Your task to perform on an android device: open app "Speedtest by Ookla" (install if not already installed) and go to login screen Image 0: 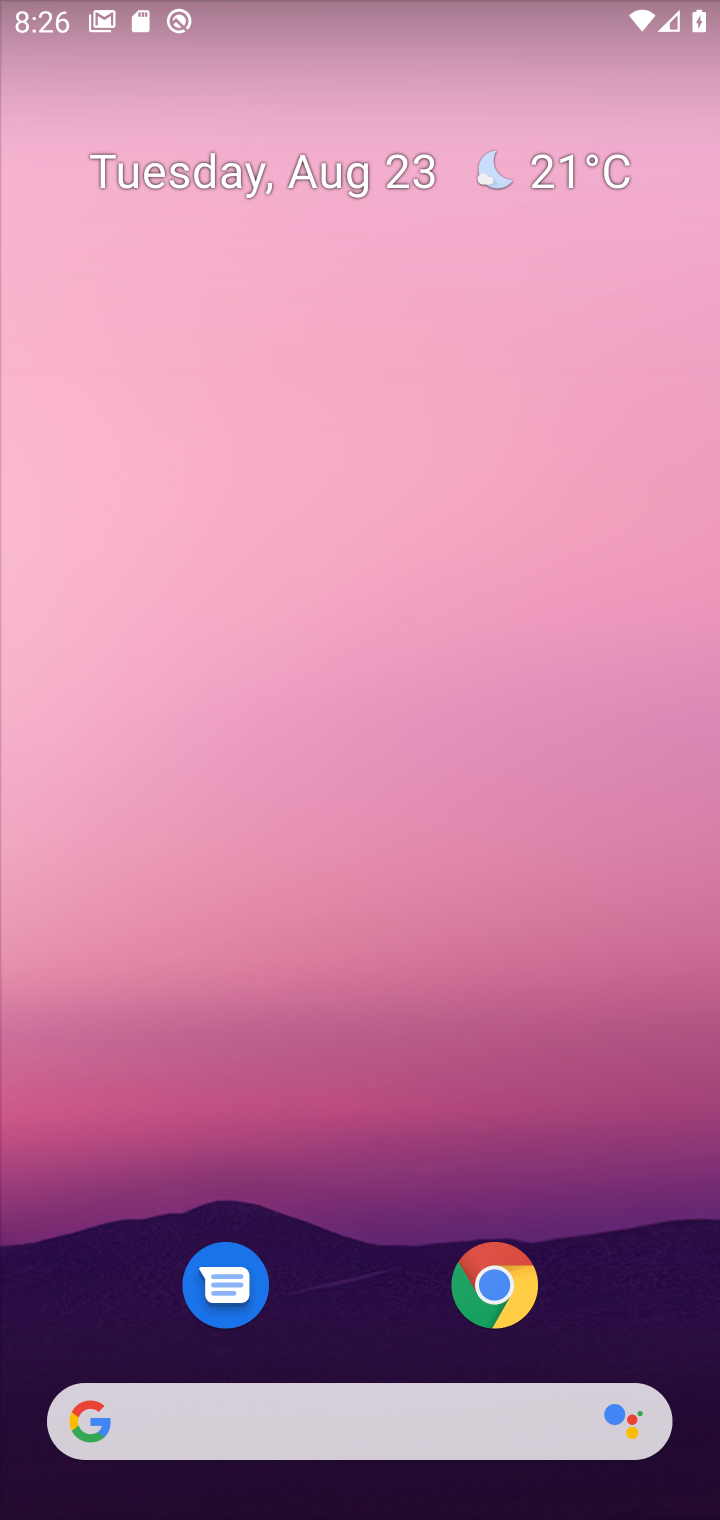
Step 0: drag from (692, 1335) to (603, 244)
Your task to perform on an android device: open app "Speedtest by Ookla" (install if not already installed) and go to login screen Image 1: 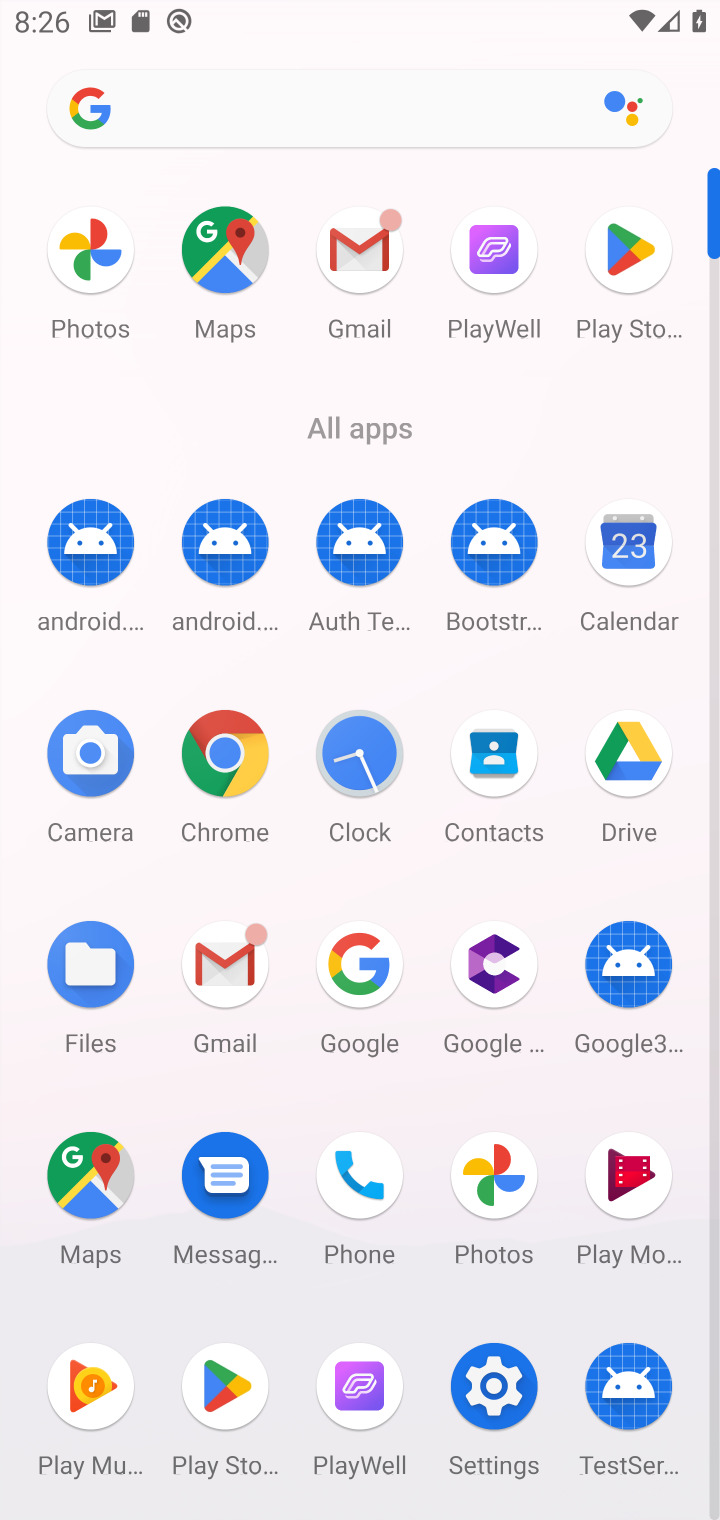
Step 1: click (227, 1394)
Your task to perform on an android device: open app "Speedtest by Ookla" (install if not already installed) and go to login screen Image 2: 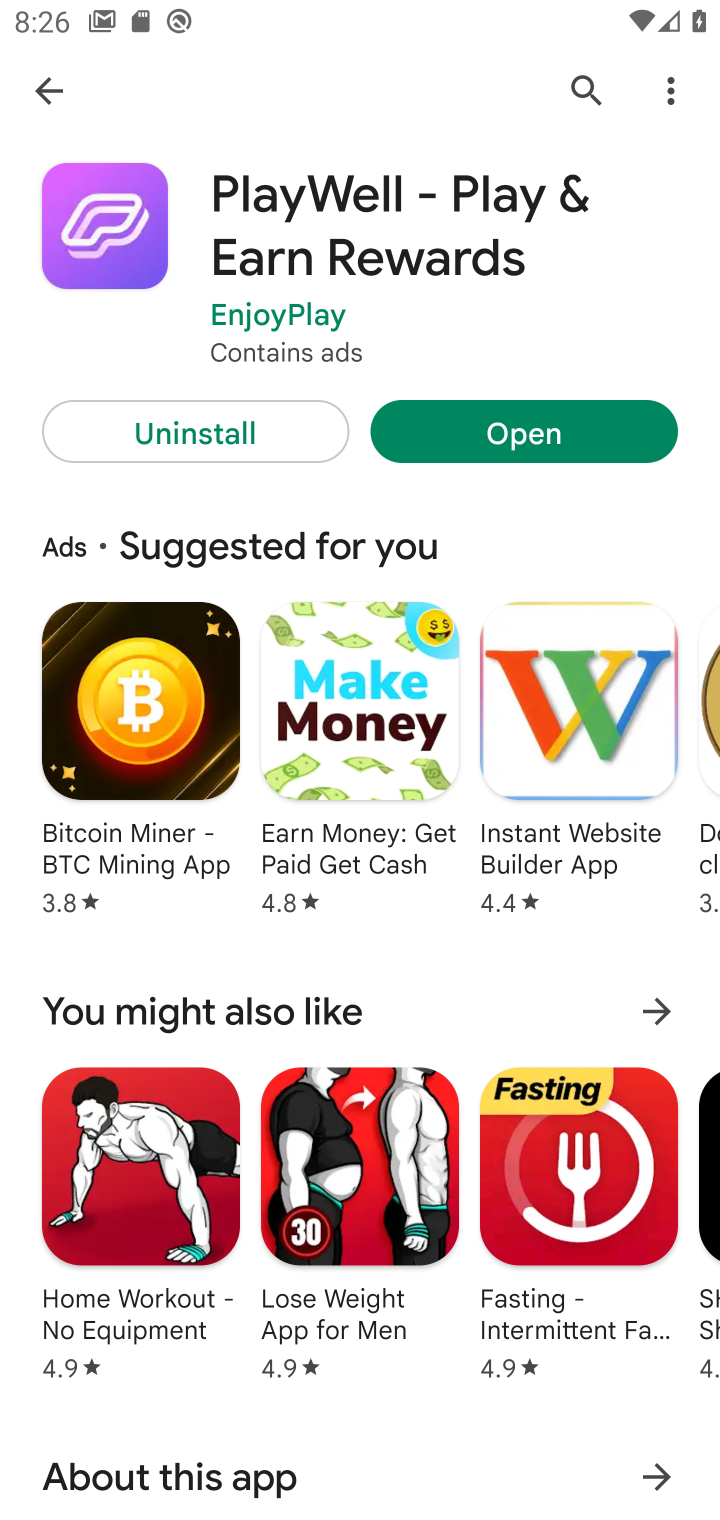
Step 2: click (575, 79)
Your task to perform on an android device: open app "Speedtest by Ookla" (install if not already installed) and go to login screen Image 3: 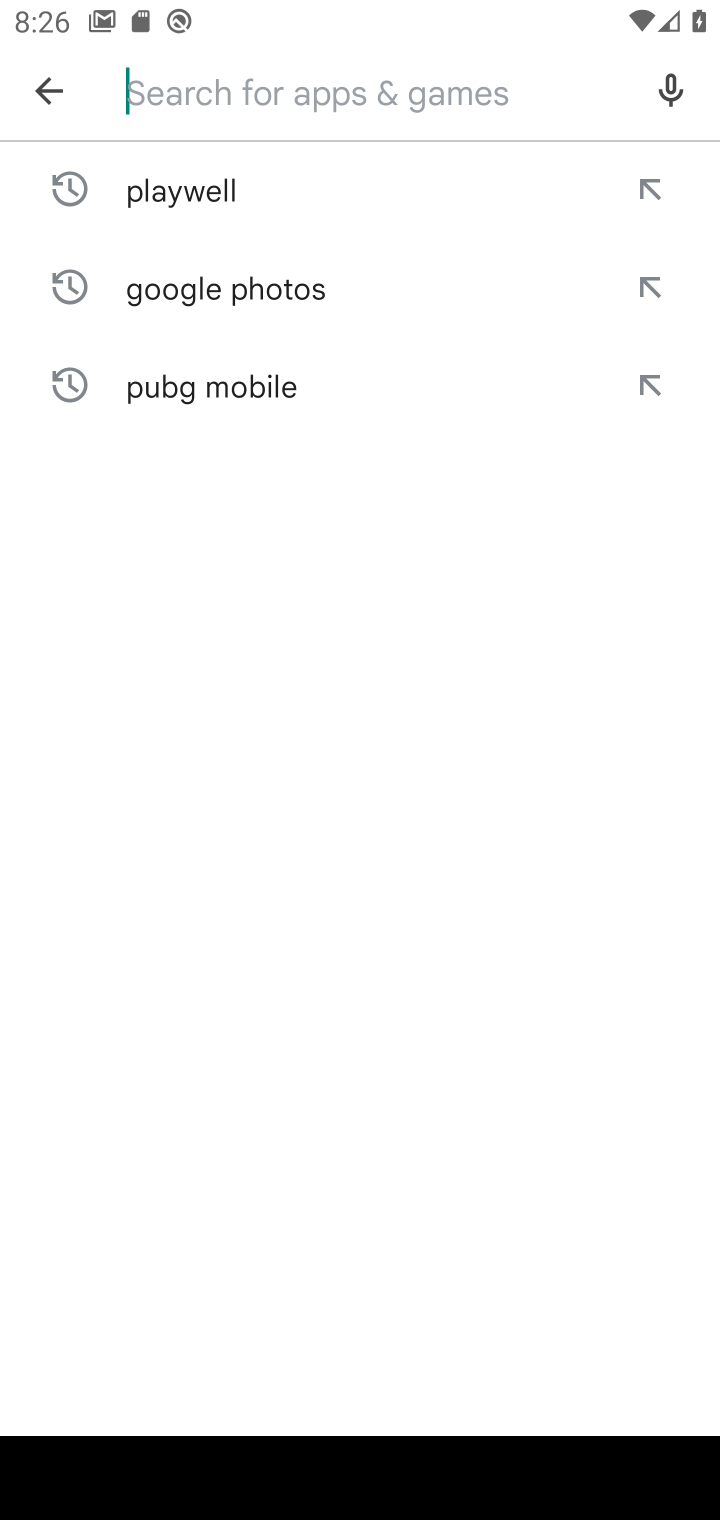
Step 3: type "Speedtest by Ookla"
Your task to perform on an android device: open app "Speedtest by Ookla" (install if not already installed) and go to login screen Image 4: 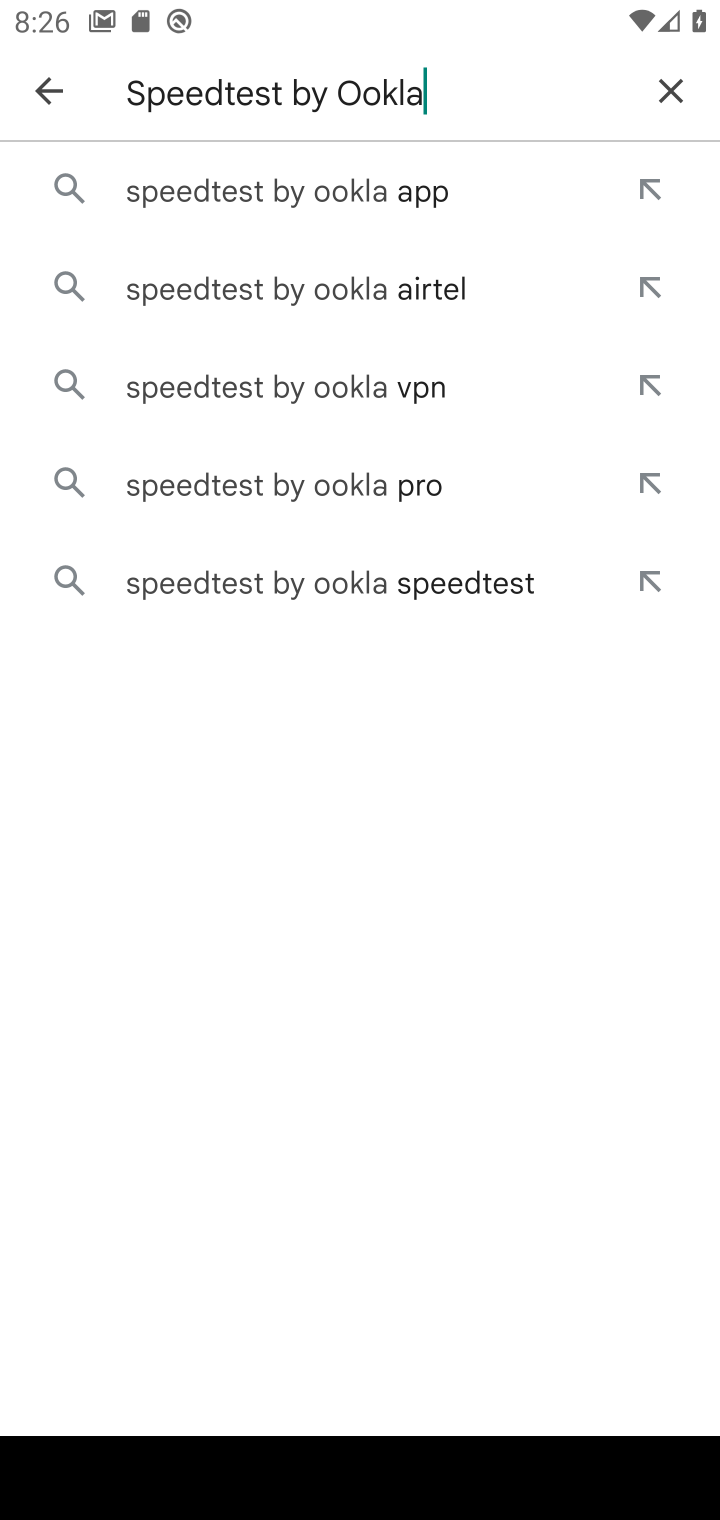
Step 4: click (235, 185)
Your task to perform on an android device: open app "Speedtest by Ookla" (install if not already installed) and go to login screen Image 5: 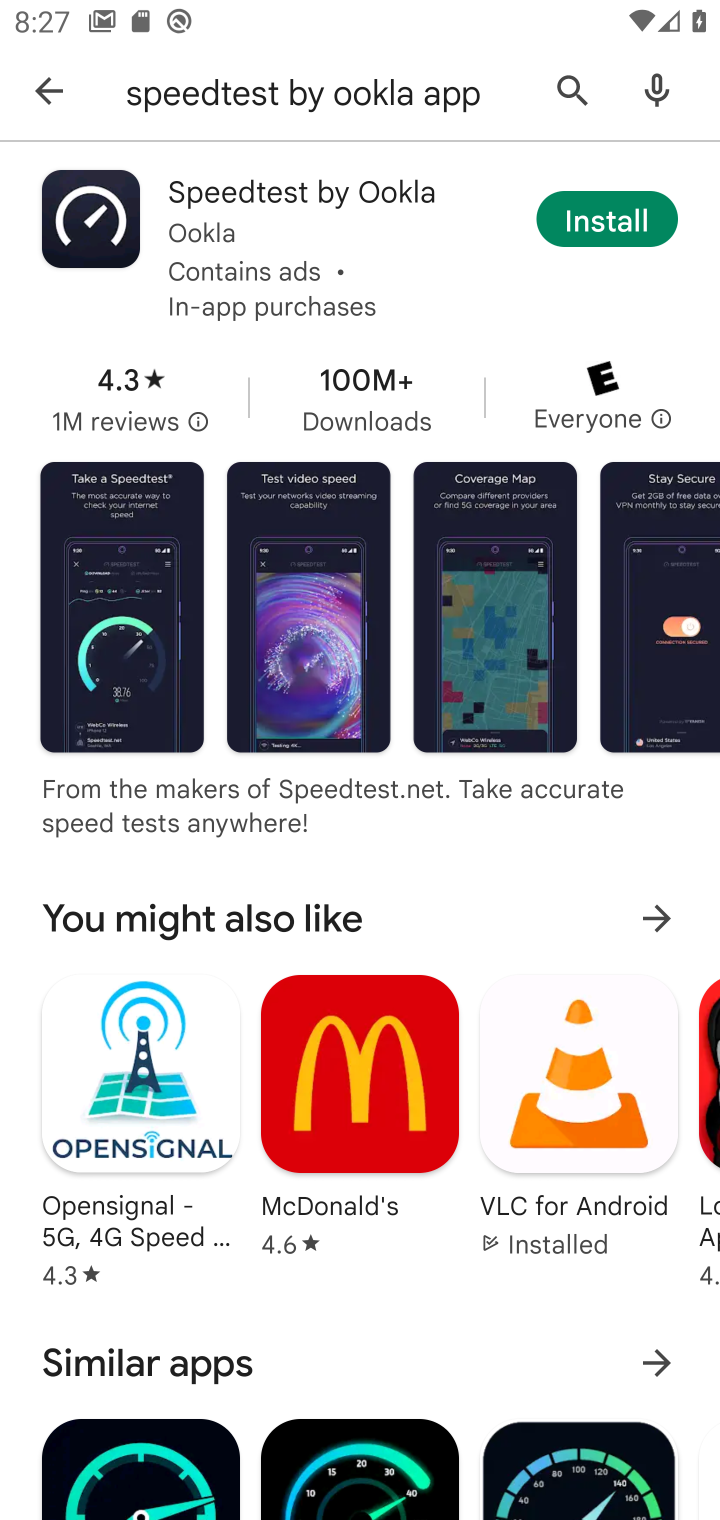
Step 5: click (236, 195)
Your task to perform on an android device: open app "Speedtest by Ookla" (install if not already installed) and go to login screen Image 6: 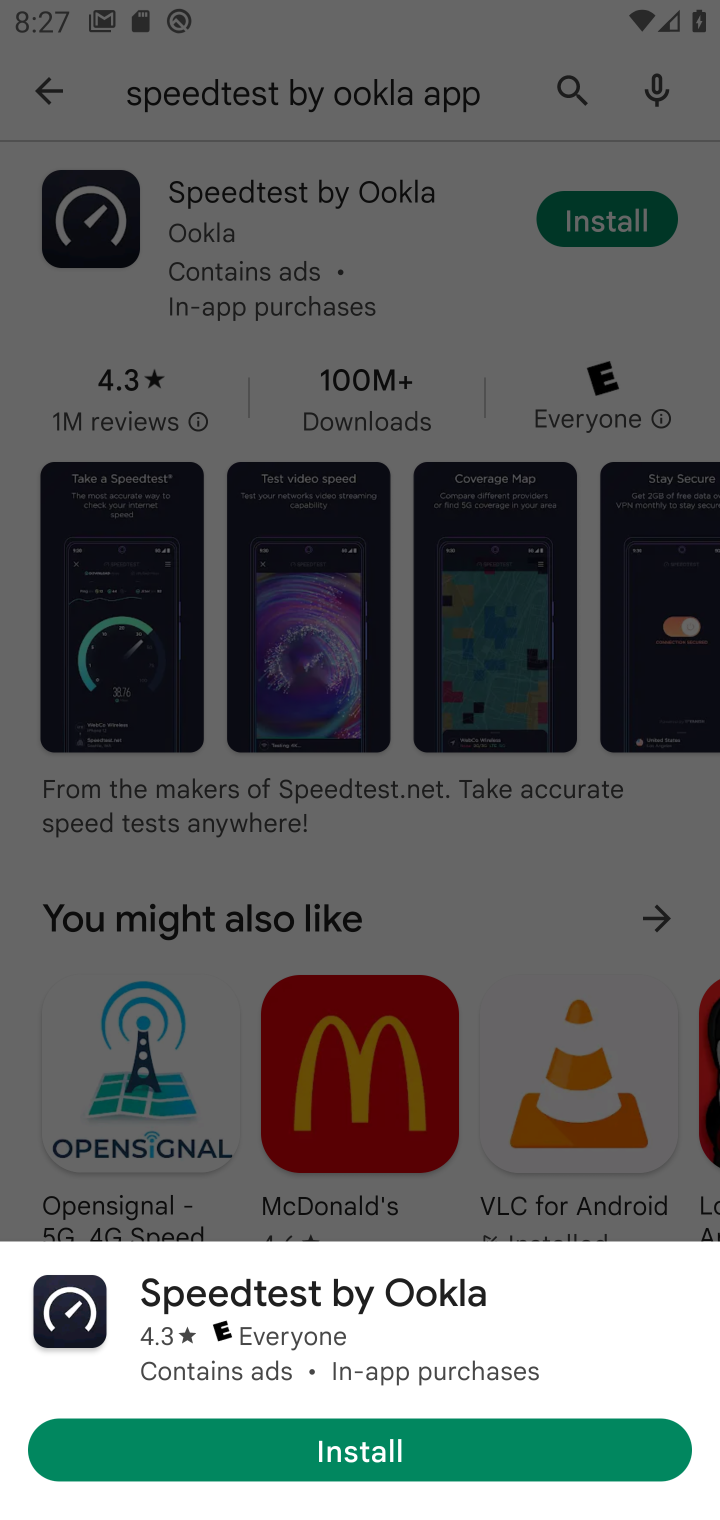
Step 6: click (343, 1452)
Your task to perform on an android device: open app "Speedtest by Ookla" (install if not already installed) and go to login screen Image 7: 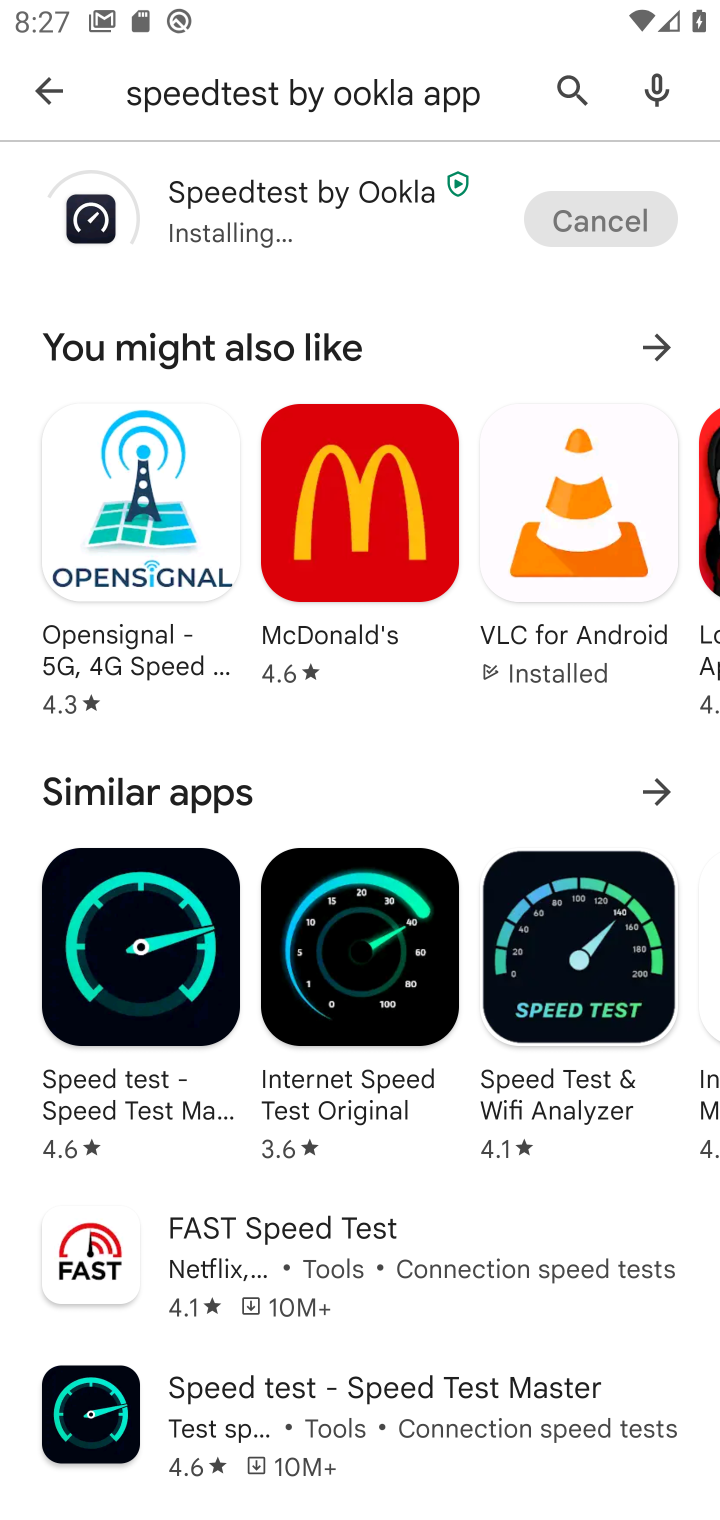
Step 7: click (249, 189)
Your task to perform on an android device: open app "Speedtest by Ookla" (install if not already installed) and go to login screen Image 8: 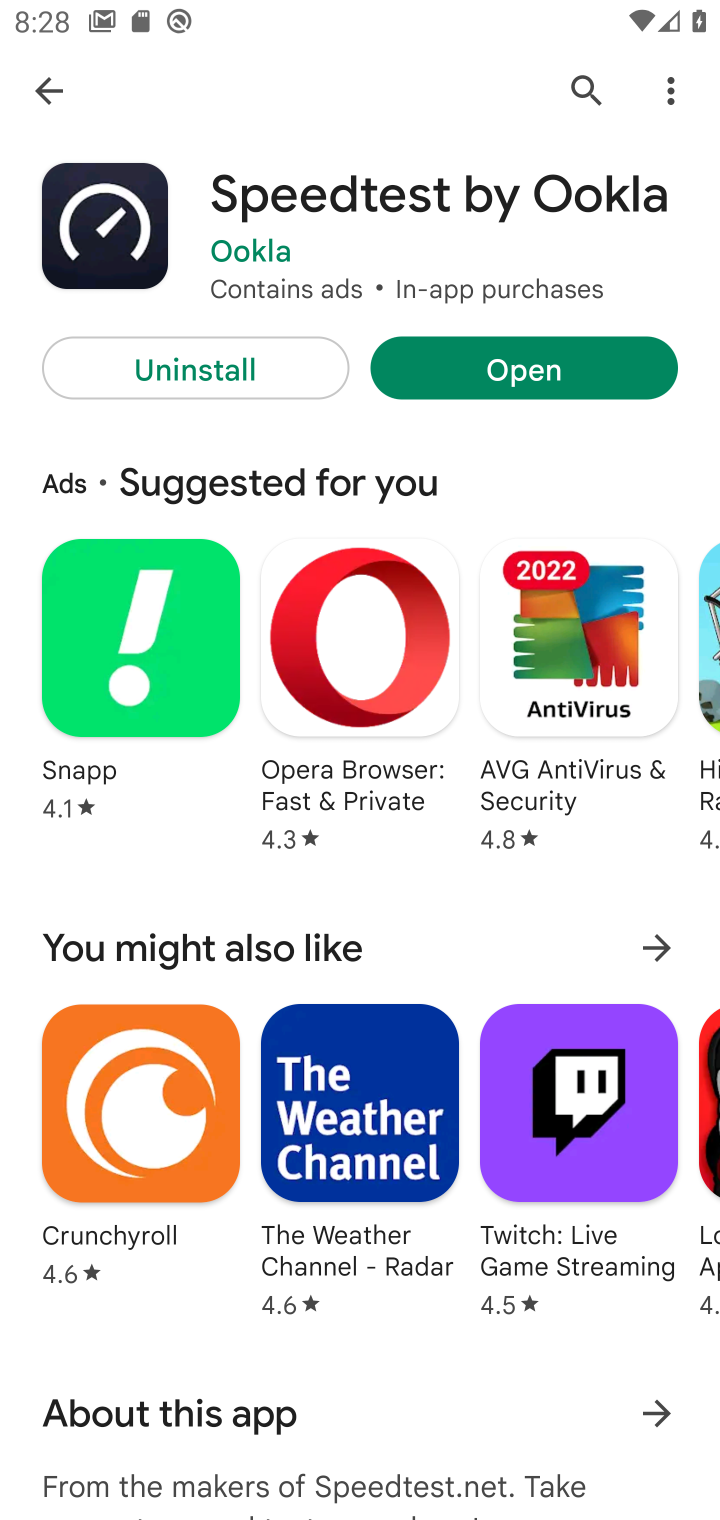
Step 8: click (518, 378)
Your task to perform on an android device: open app "Speedtest by Ookla" (install if not already installed) and go to login screen Image 9: 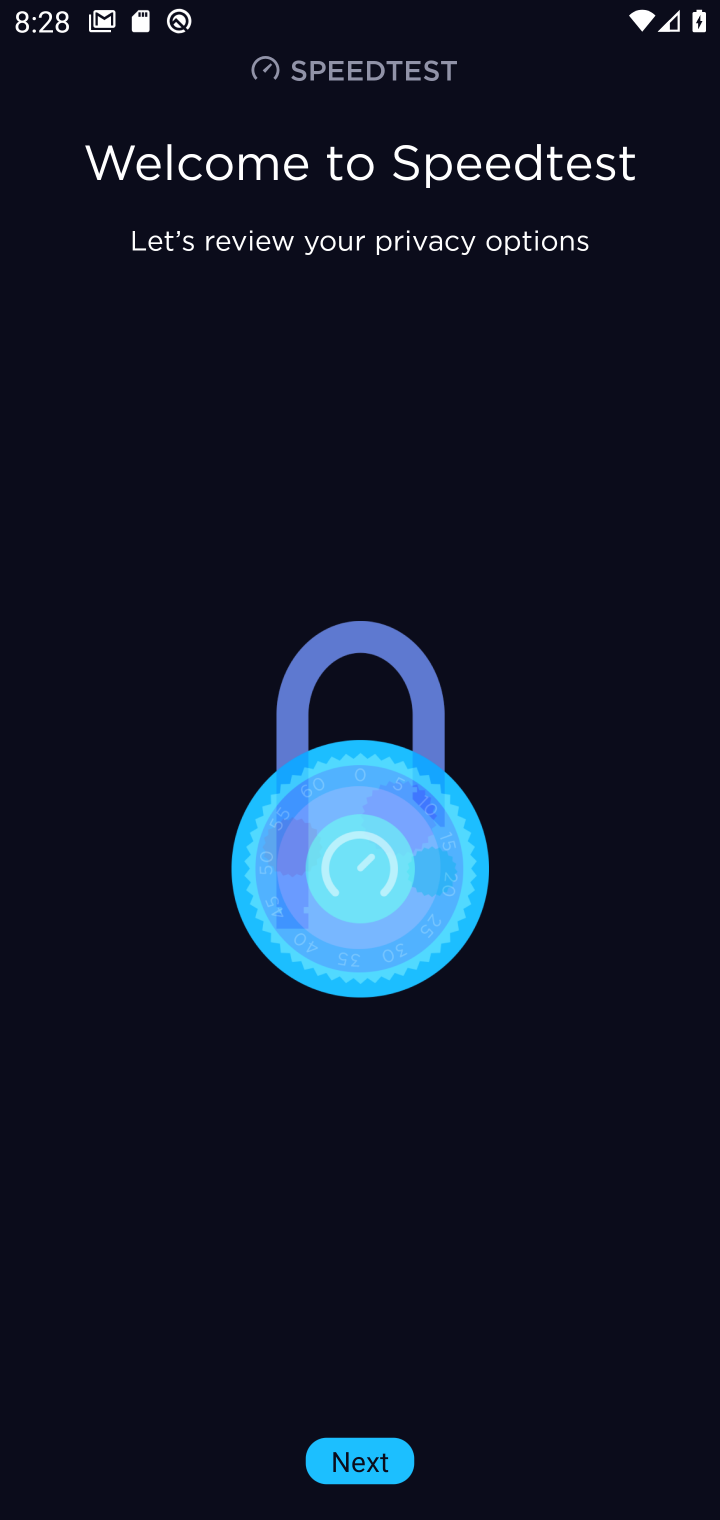
Step 9: click (354, 1451)
Your task to perform on an android device: open app "Speedtest by Ookla" (install if not already installed) and go to login screen Image 10: 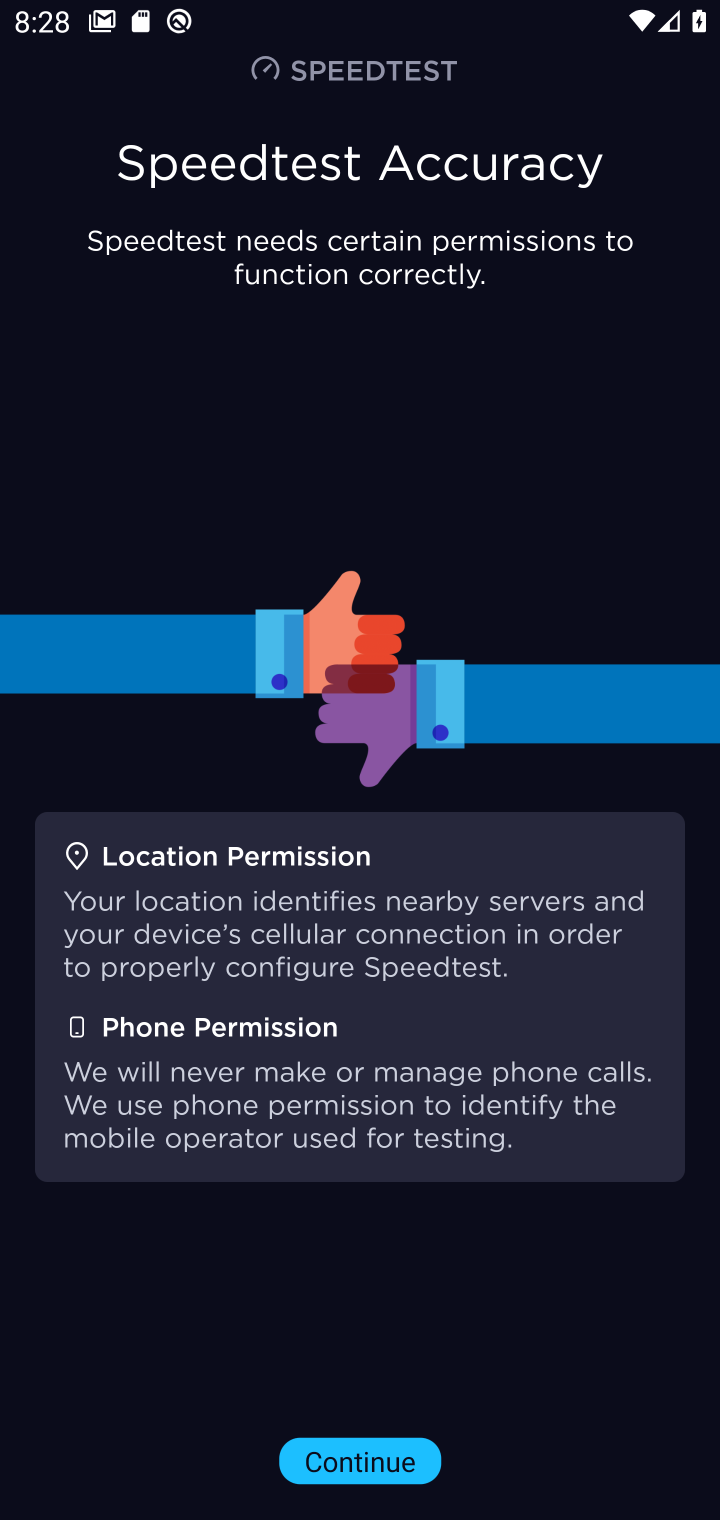
Step 10: click (365, 1455)
Your task to perform on an android device: open app "Speedtest by Ookla" (install if not already installed) and go to login screen Image 11: 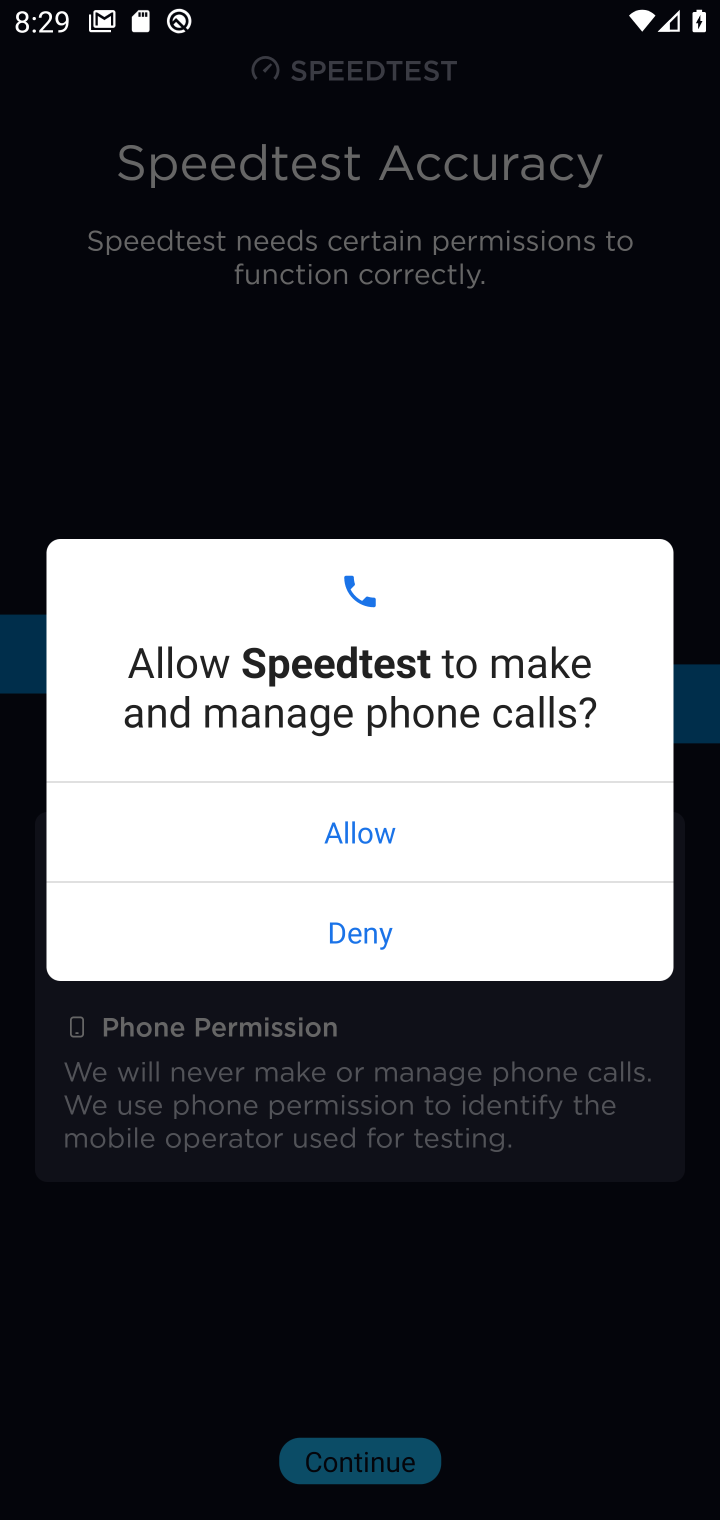
Step 11: click (355, 816)
Your task to perform on an android device: open app "Speedtest by Ookla" (install if not already installed) and go to login screen Image 12: 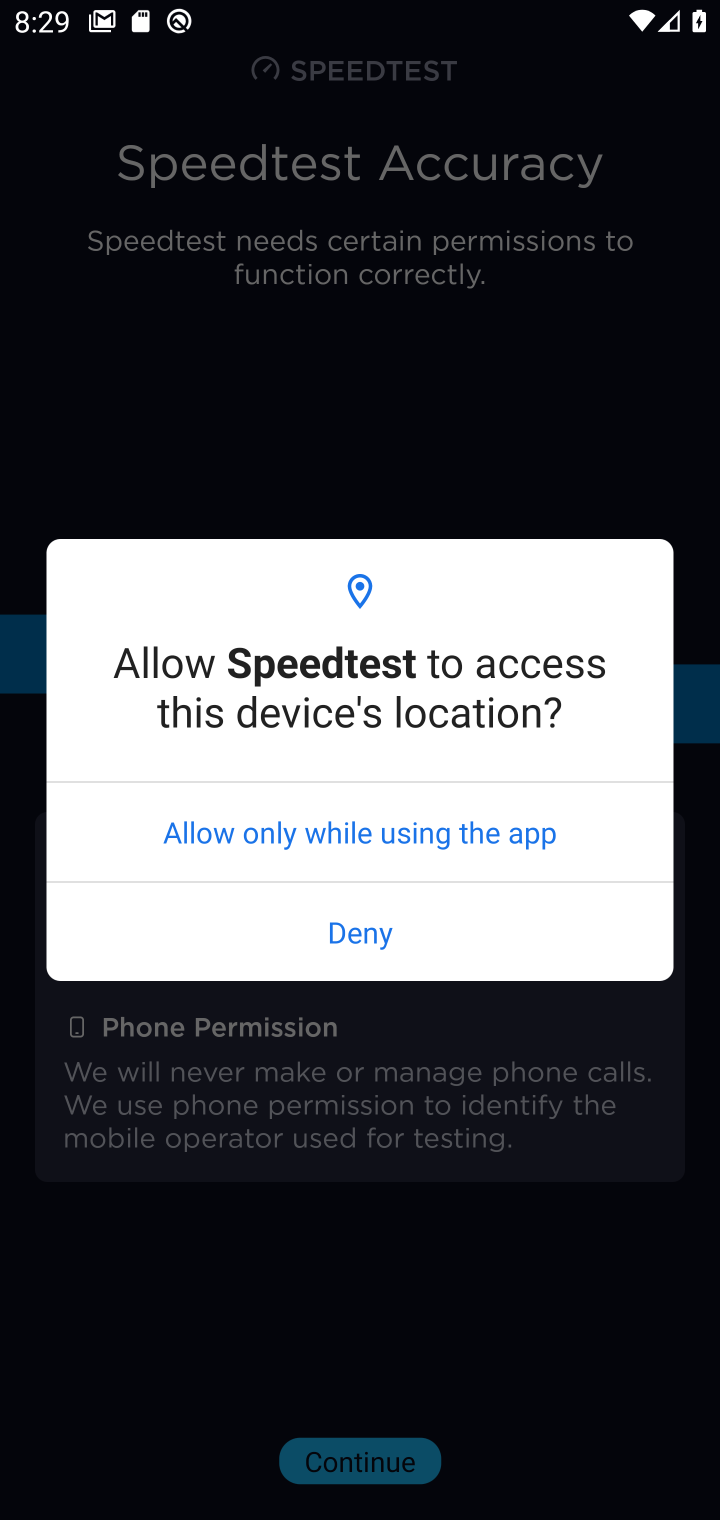
Step 12: click (355, 816)
Your task to perform on an android device: open app "Speedtest by Ookla" (install if not already installed) and go to login screen Image 13: 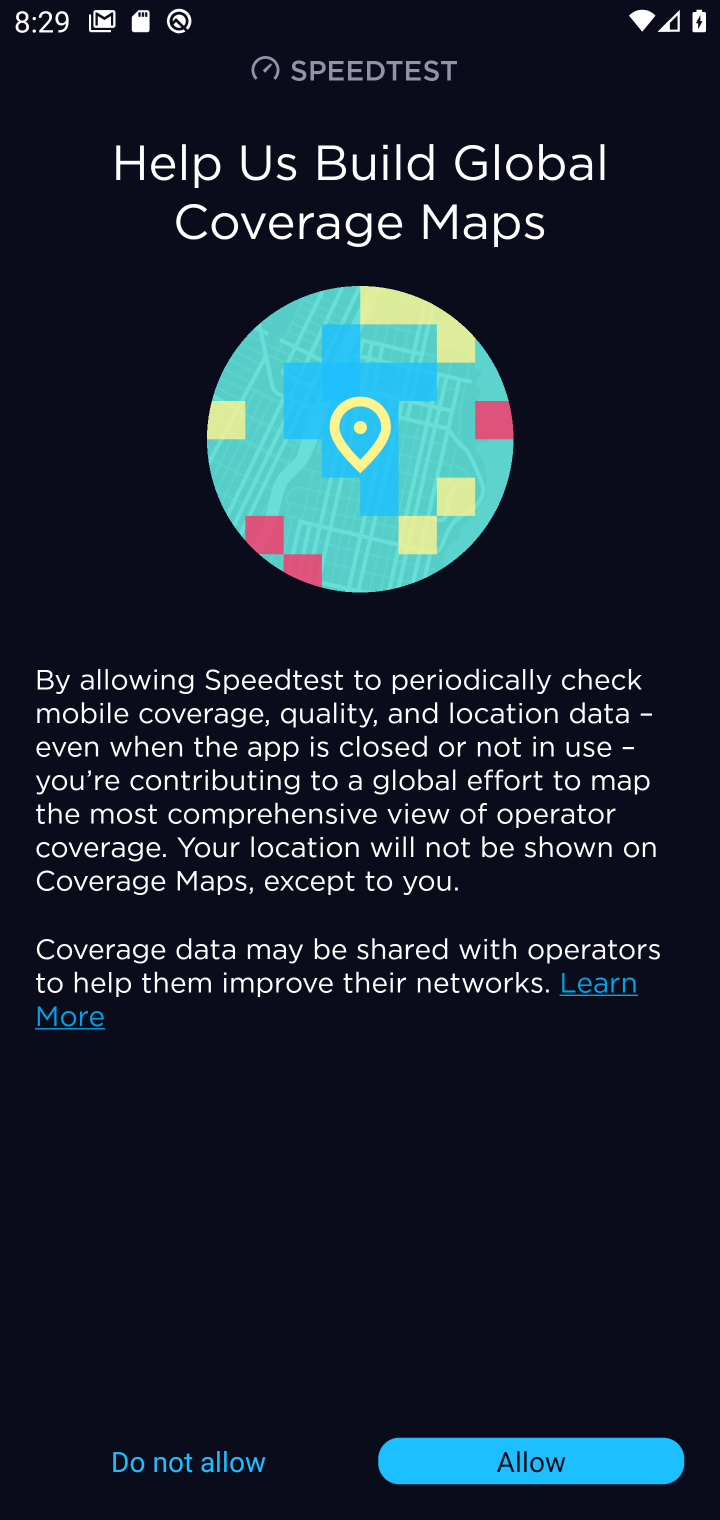
Step 13: click (176, 1456)
Your task to perform on an android device: open app "Speedtest by Ookla" (install if not already installed) and go to login screen Image 14: 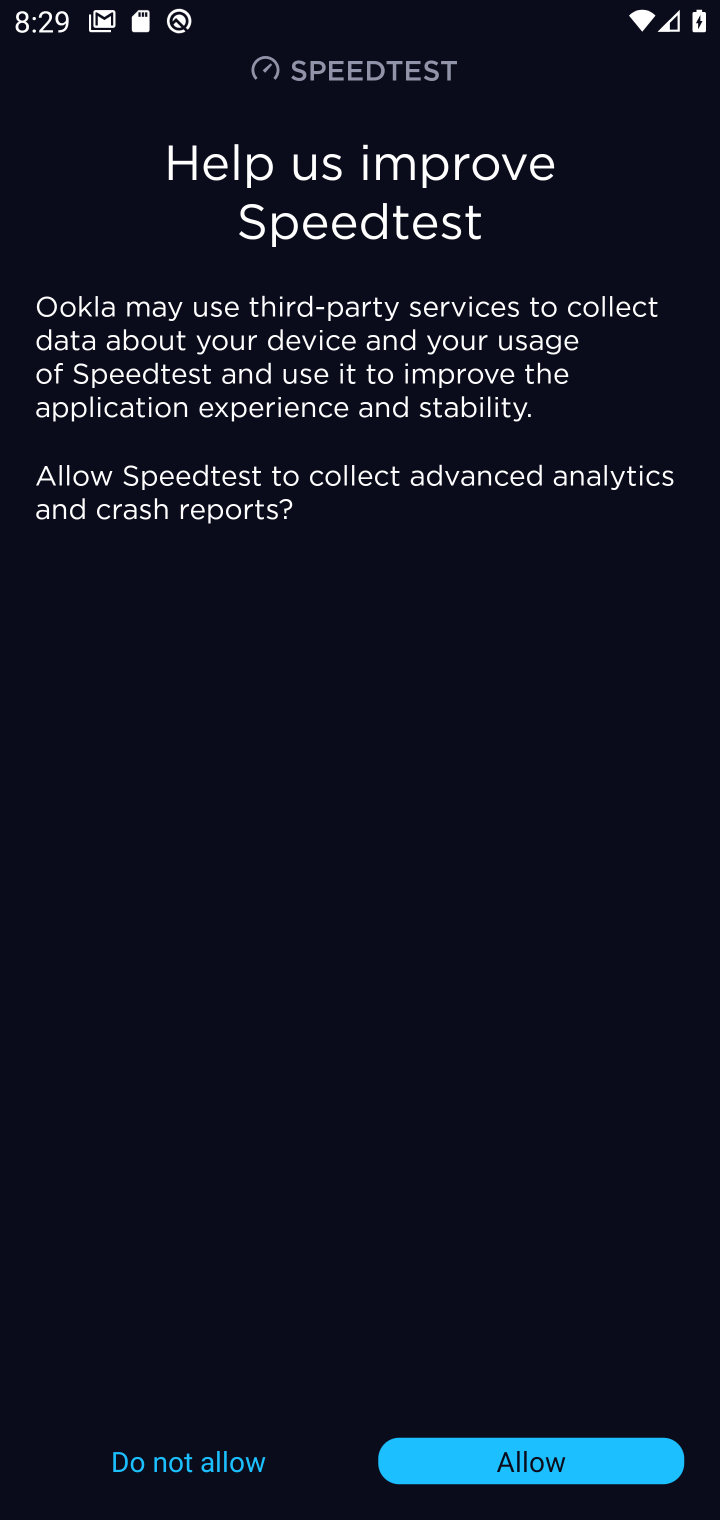
Step 14: task complete